Your task to perform on an android device: open app "DoorDash - Food Delivery" (install if not already installed) Image 0: 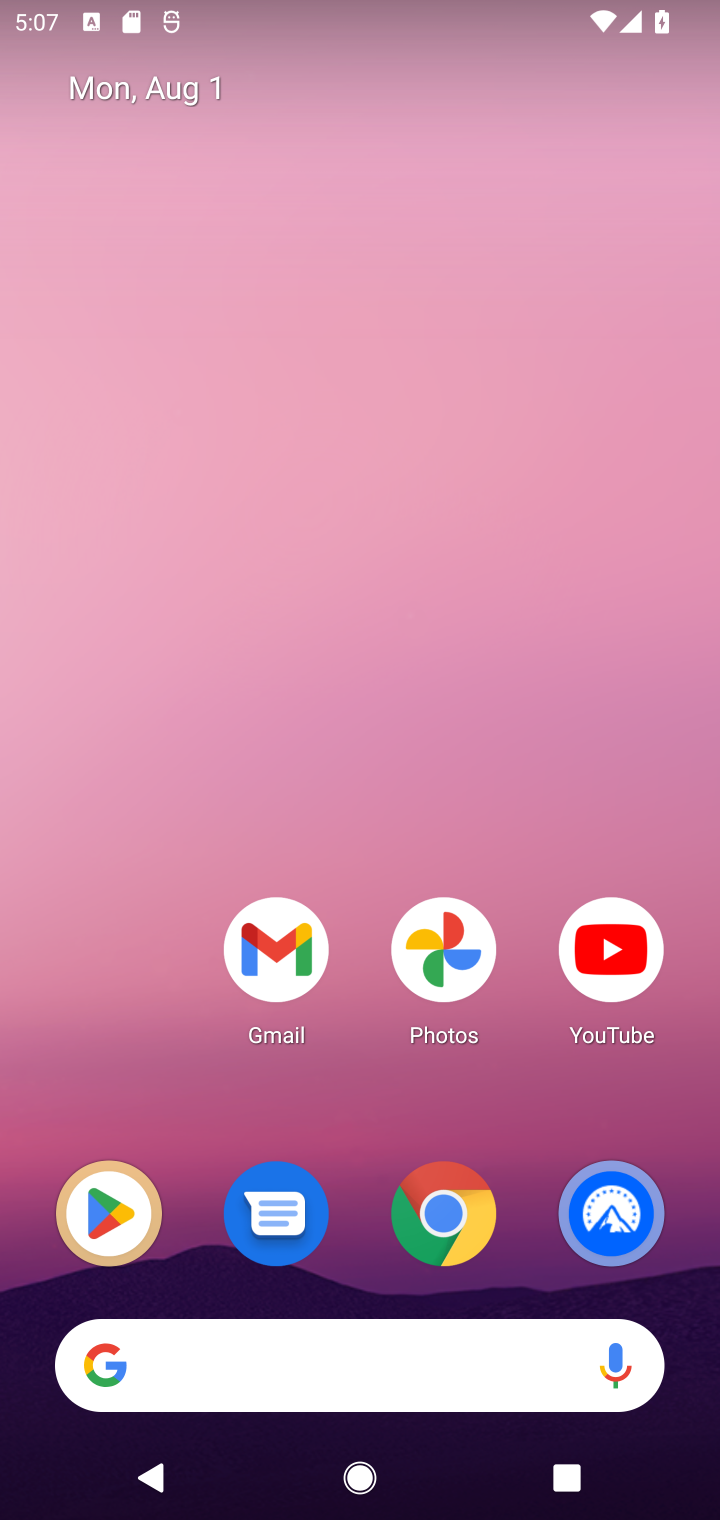
Step 0: drag from (559, 246) to (547, 69)
Your task to perform on an android device: open app "DoorDash - Food Delivery" (install if not already installed) Image 1: 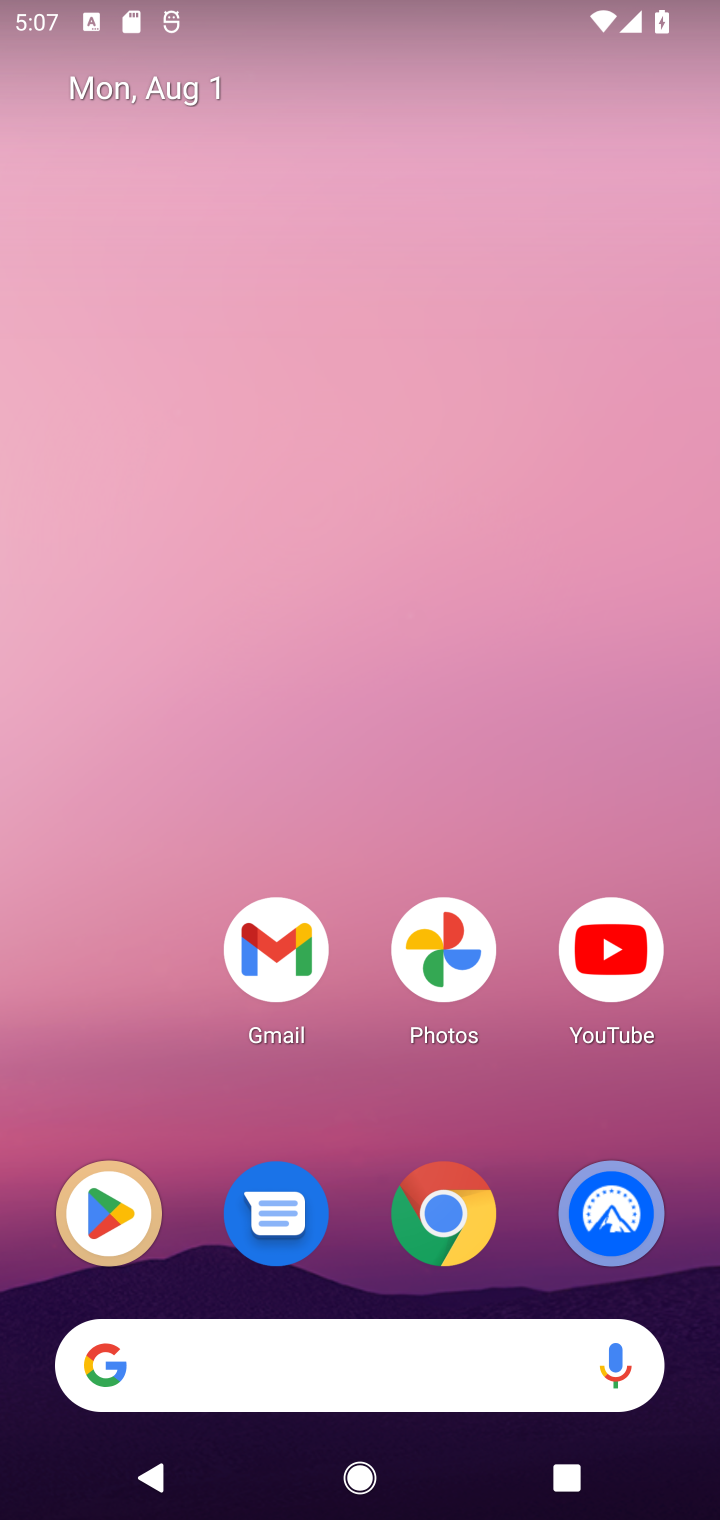
Step 1: drag from (515, 1046) to (531, 187)
Your task to perform on an android device: open app "DoorDash - Food Delivery" (install if not already installed) Image 2: 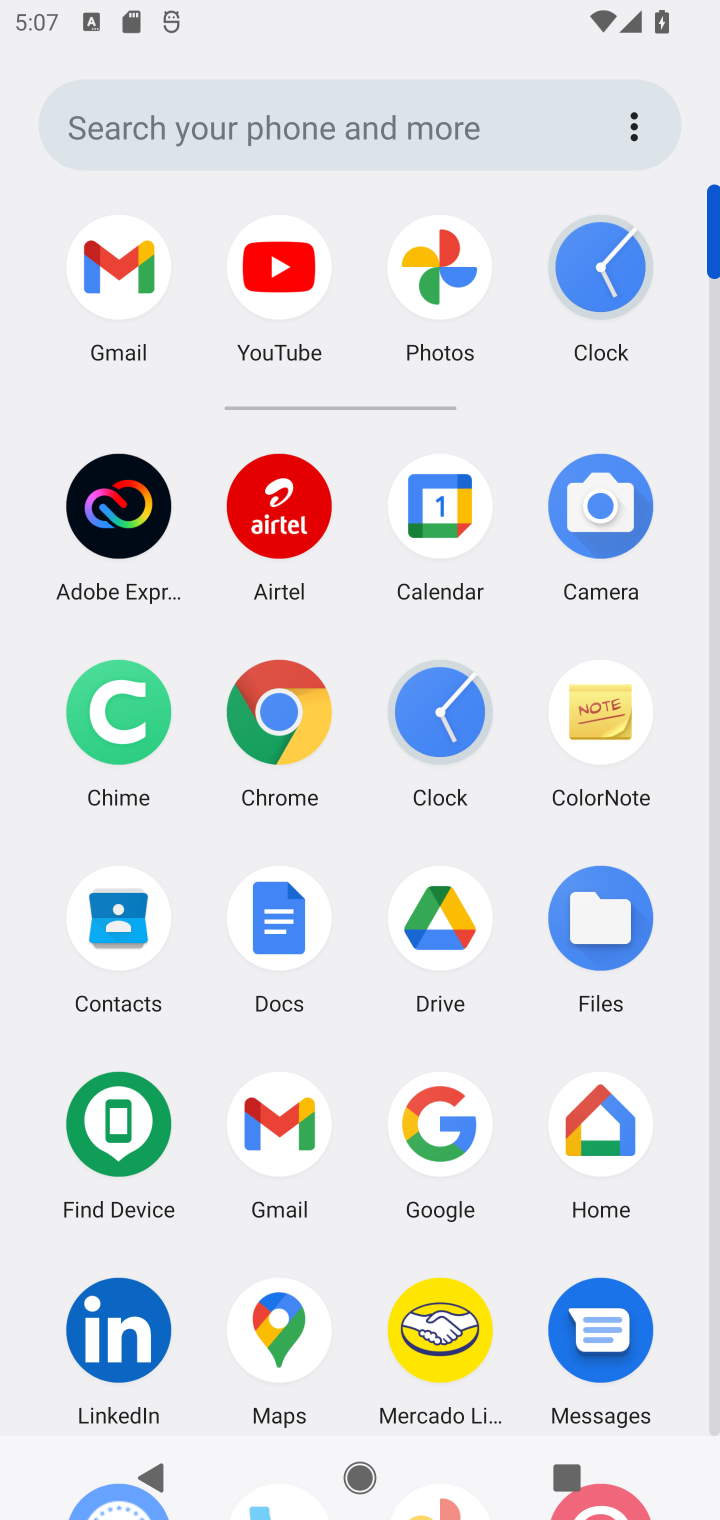
Step 2: drag from (526, 1184) to (617, 336)
Your task to perform on an android device: open app "DoorDash - Food Delivery" (install if not already installed) Image 3: 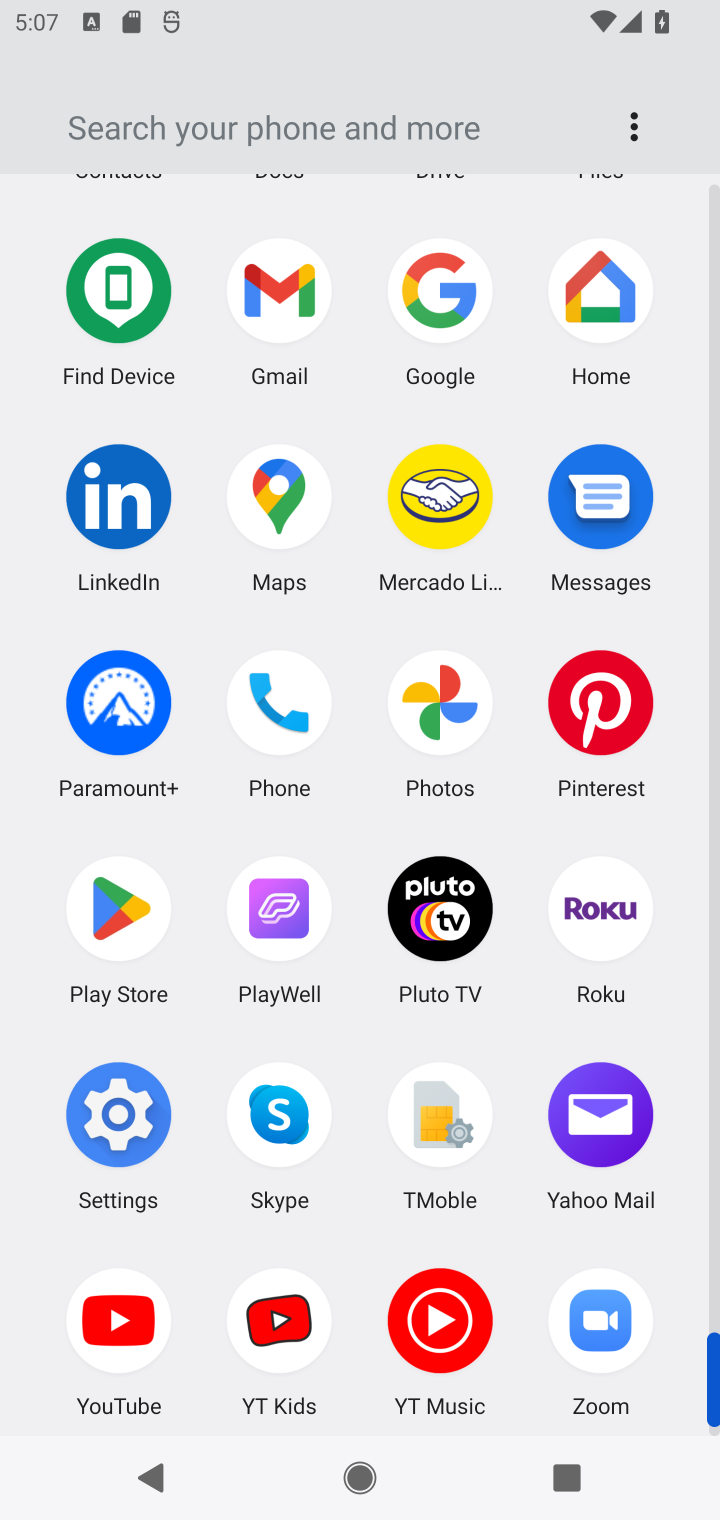
Step 3: drag from (341, 1020) to (403, 390)
Your task to perform on an android device: open app "DoorDash - Food Delivery" (install if not already installed) Image 4: 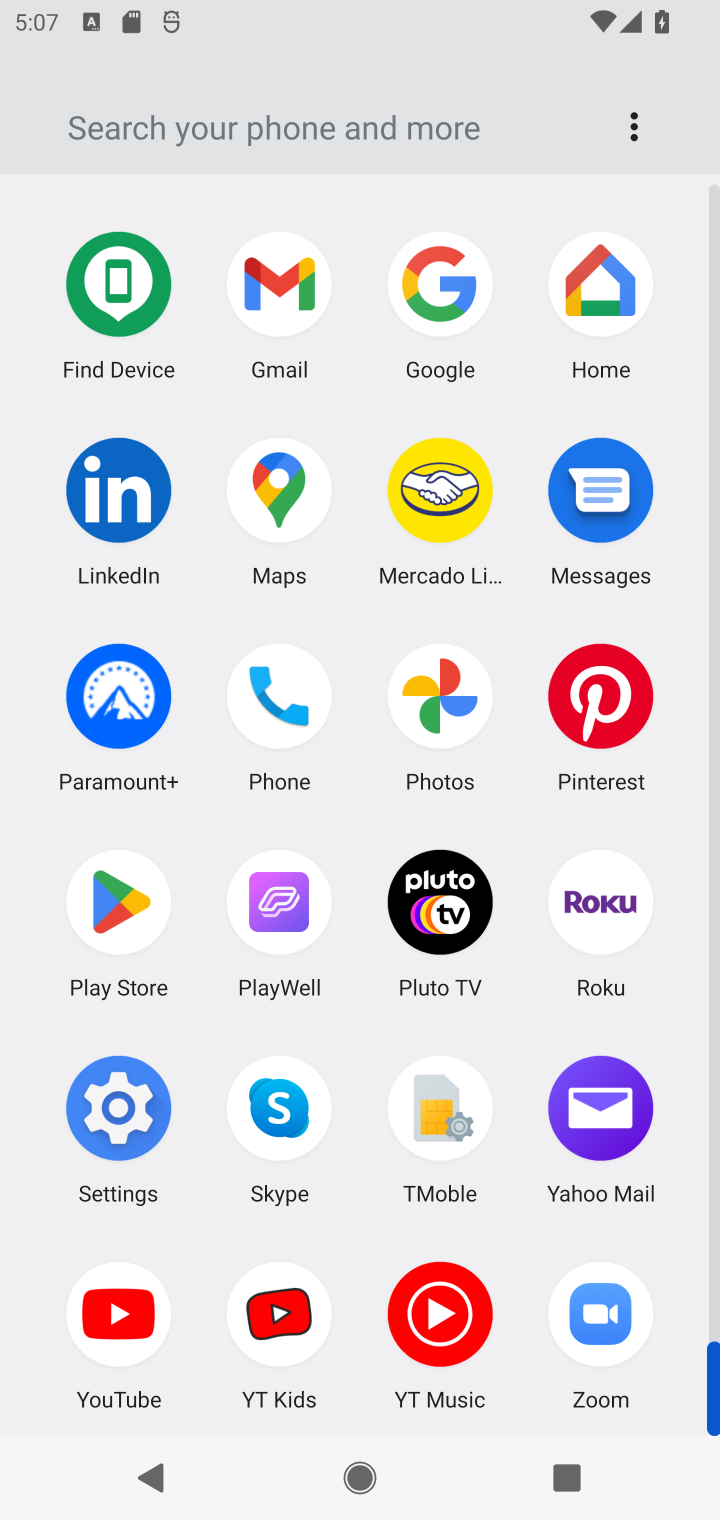
Step 4: drag from (377, 391) to (310, 1214)
Your task to perform on an android device: open app "DoorDash - Food Delivery" (install if not already installed) Image 5: 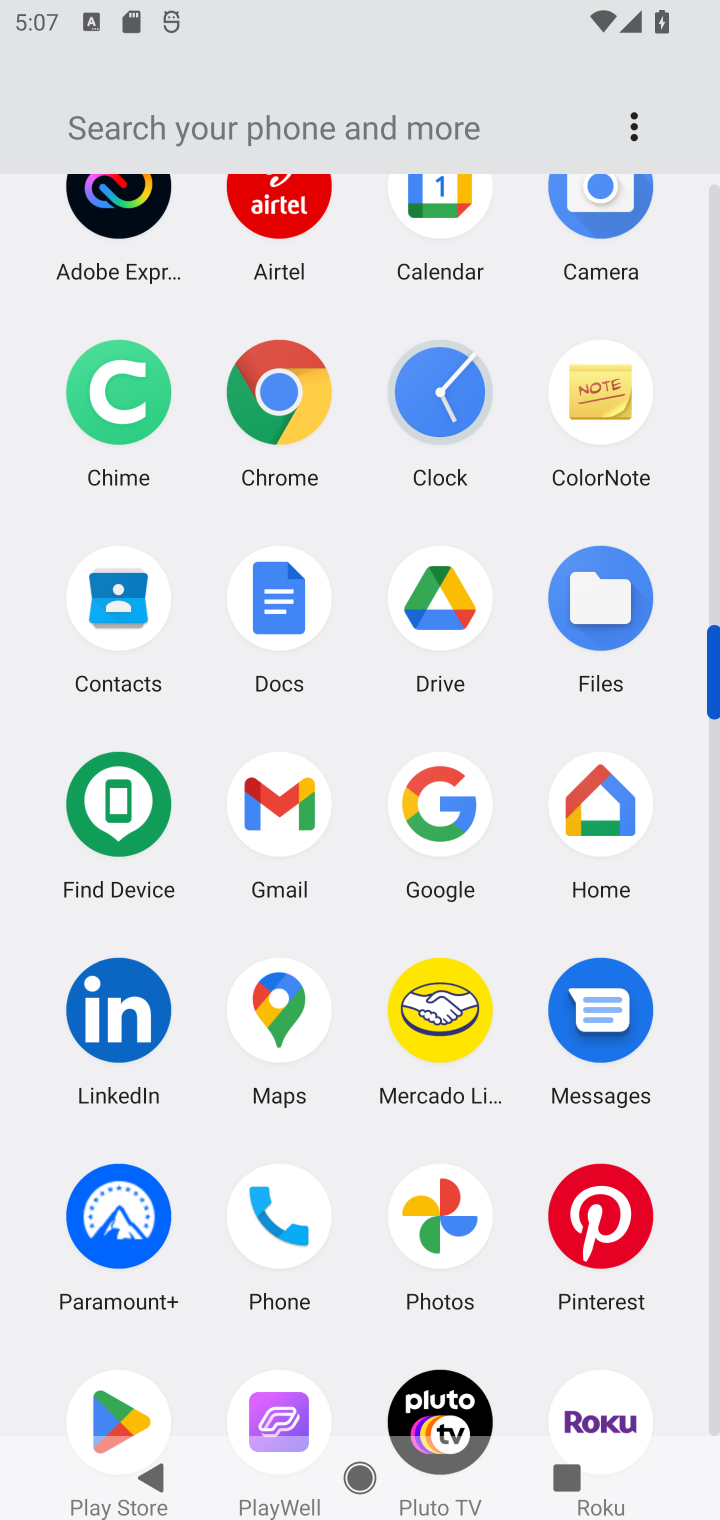
Step 5: drag from (347, 493) to (509, 474)
Your task to perform on an android device: open app "DoorDash - Food Delivery" (install if not already installed) Image 6: 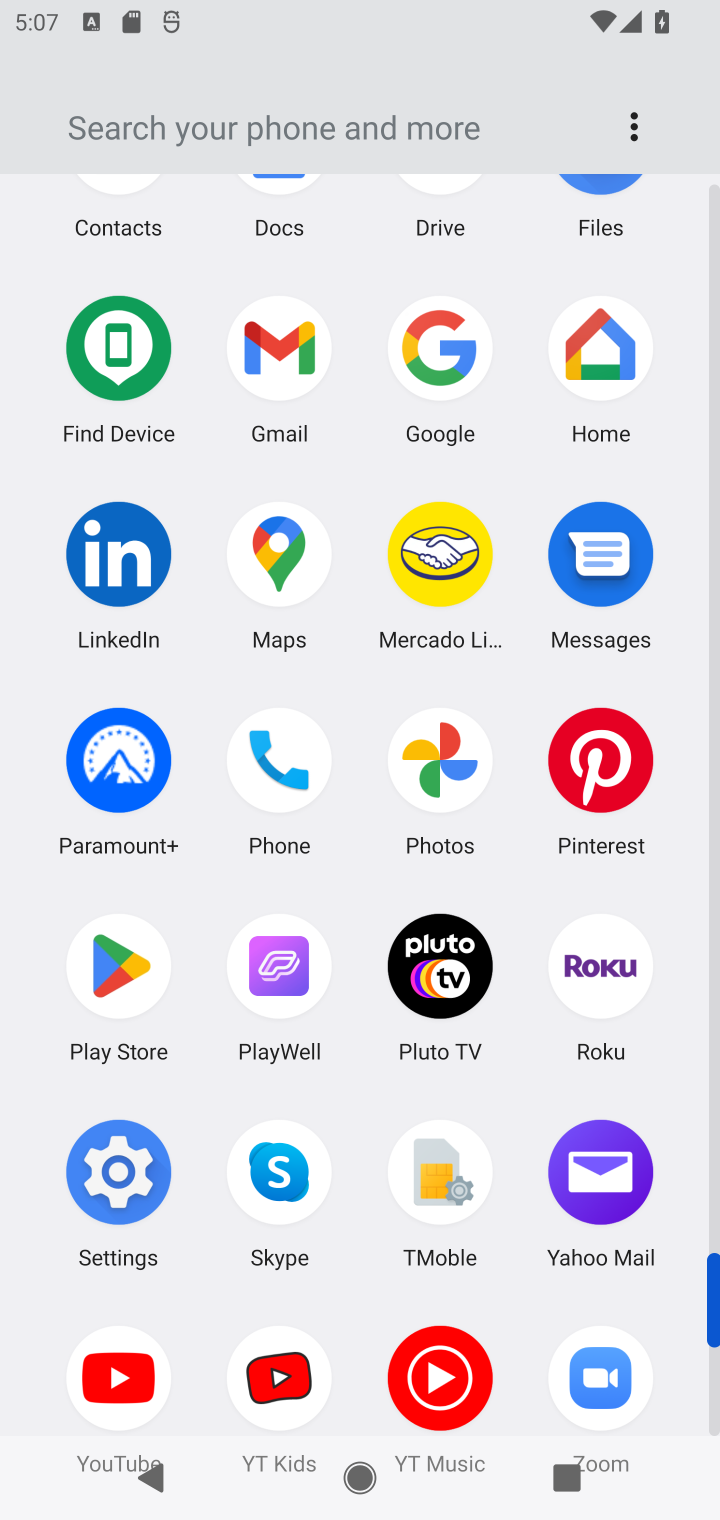
Step 6: click (107, 956)
Your task to perform on an android device: open app "DoorDash - Food Delivery" (install if not already installed) Image 7: 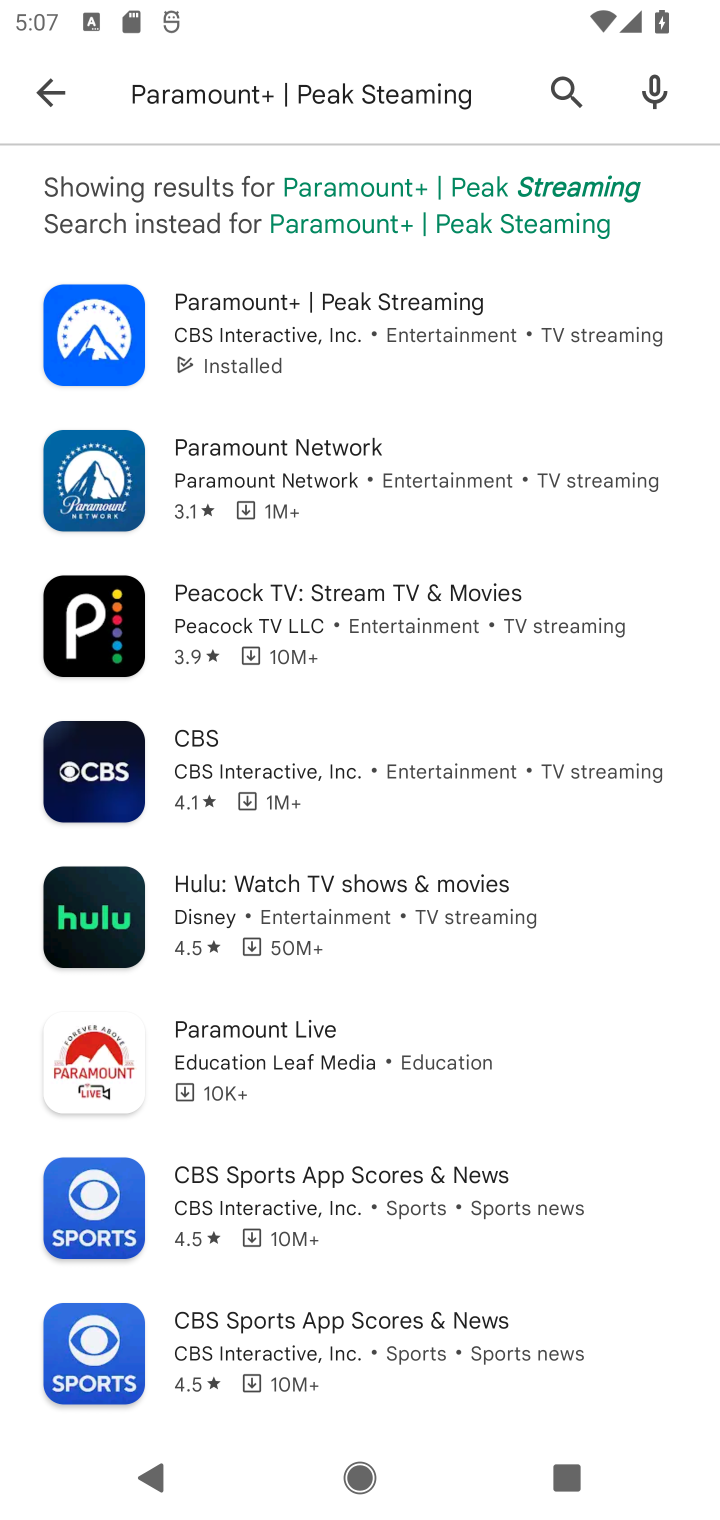
Step 7: click (416, 94)
Your task to perform on an android device: open app "DoorDash - Food Delivery" (install if not already installed) Image 8: 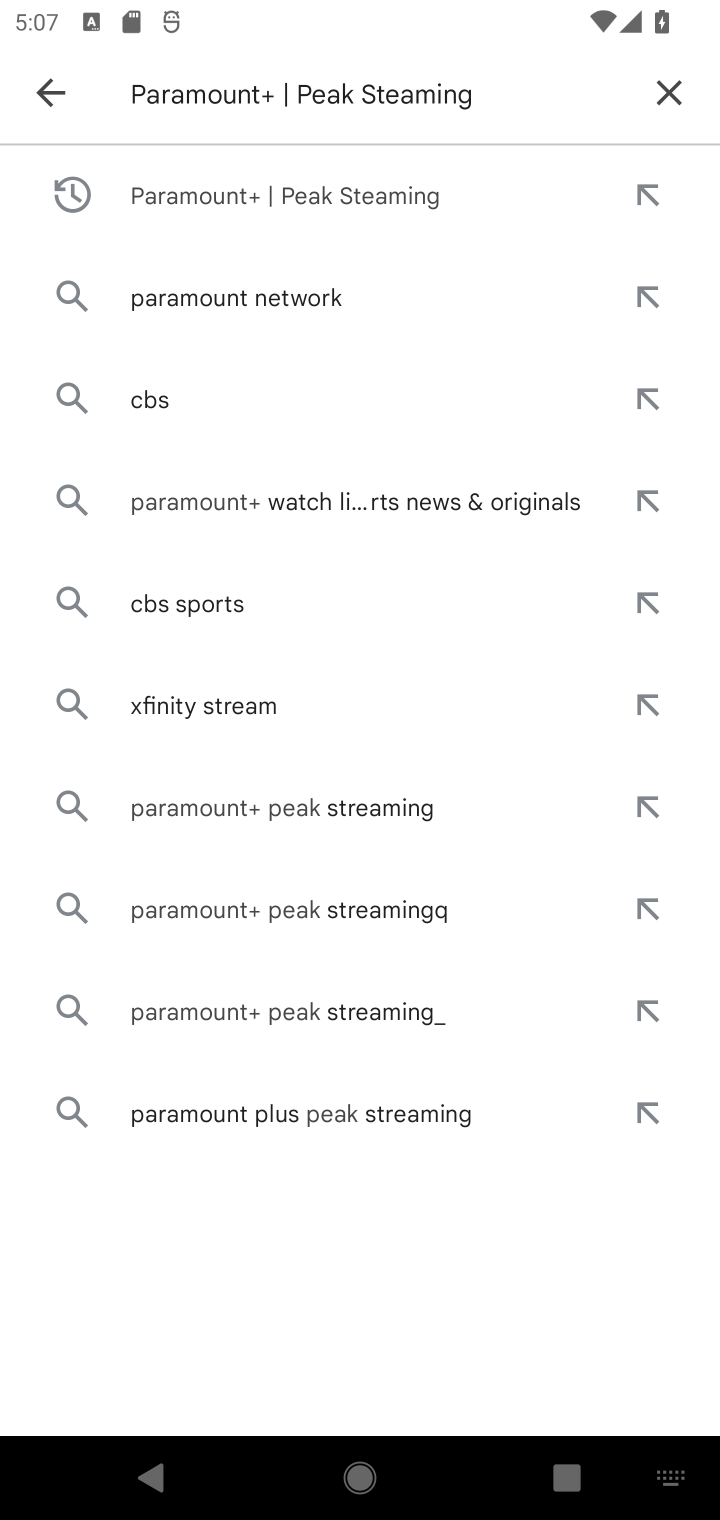
Step 8: click (678, 90)
Your task to perform on an android device: open app "DoorDash - Food Delivery" (install if not already installed) Image 9: 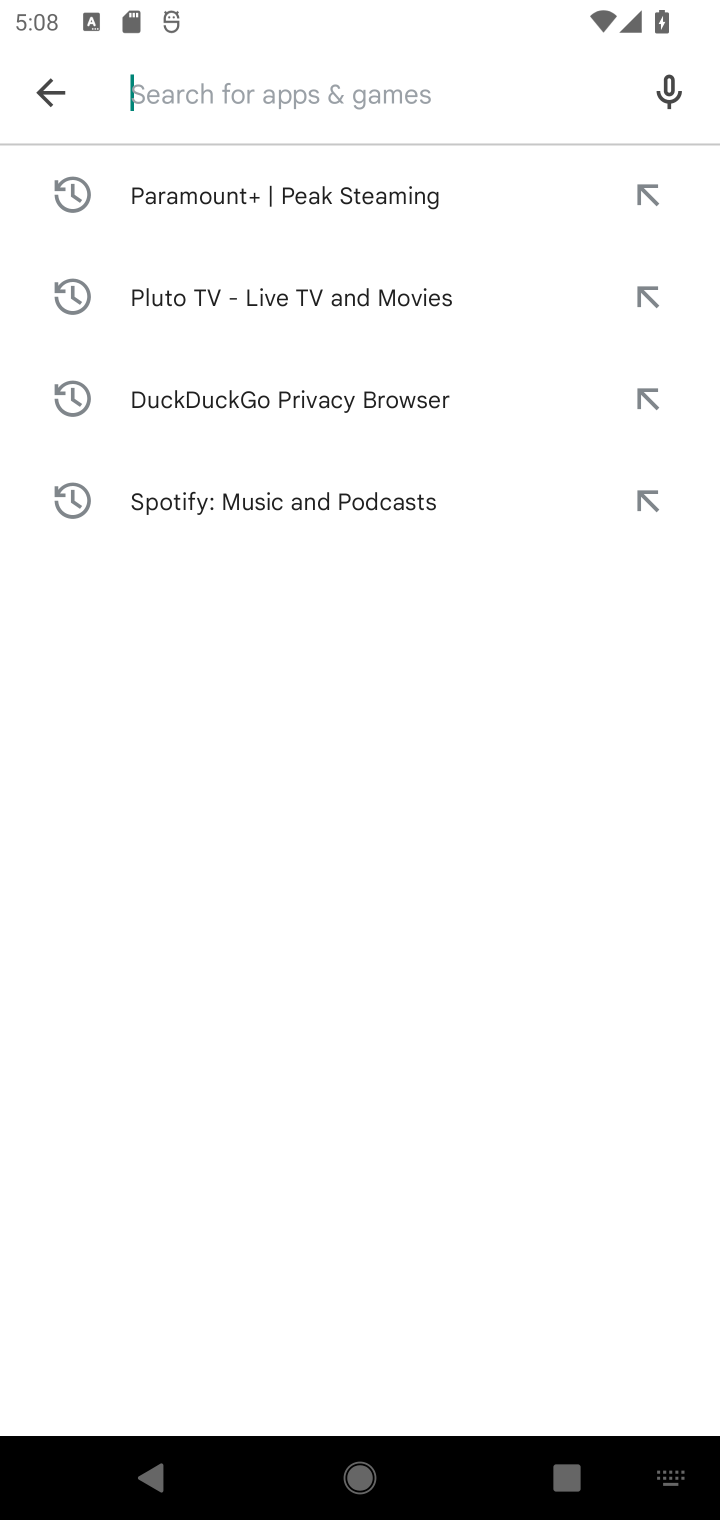
Step 9: type "DoorDash - Food Delivery"
Your task to perform on an android device: open app "DoorDash - Food Delivery" (install if not already installed) Image 10: 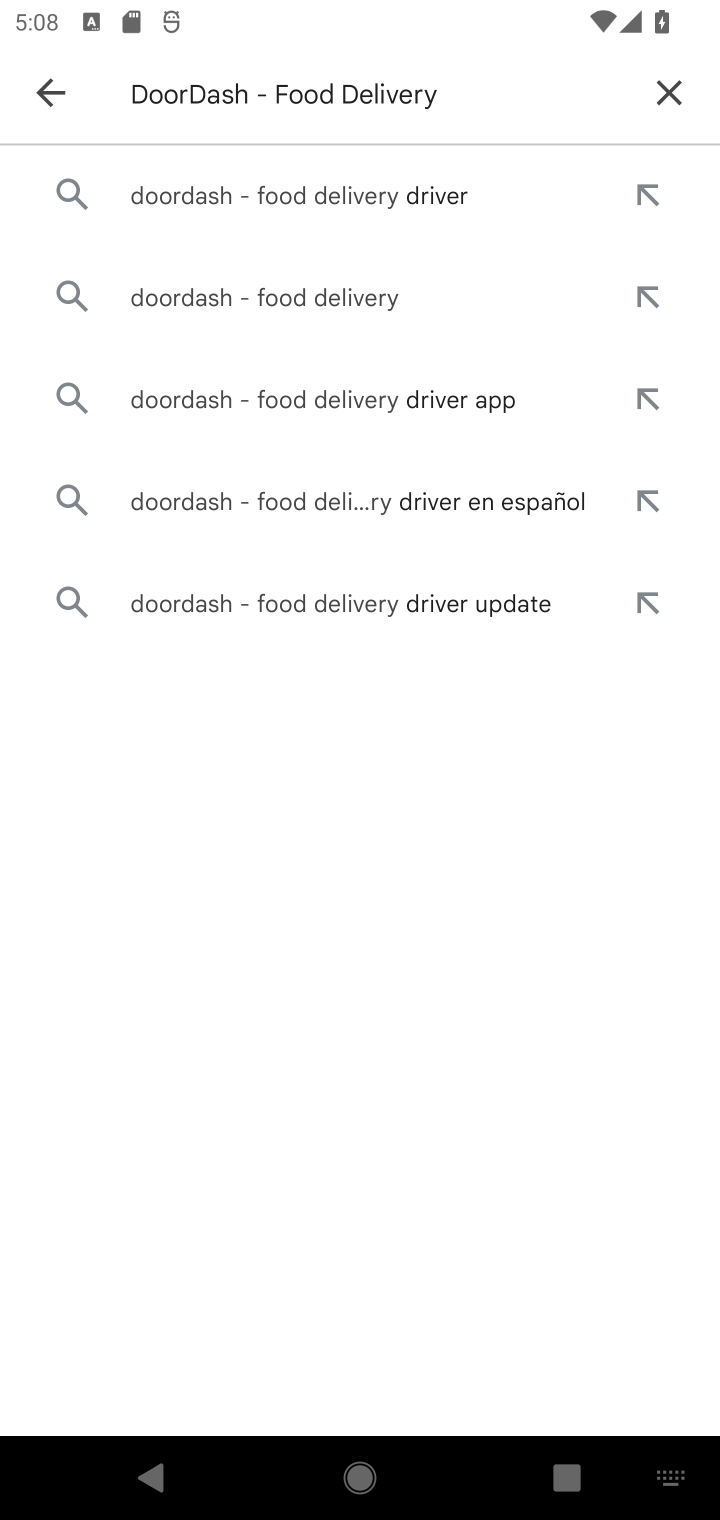
Step 10: press enter
Your task to perform on an android device: open app "DoorDash - Food Delivery" (install if not already installed) Image 11: 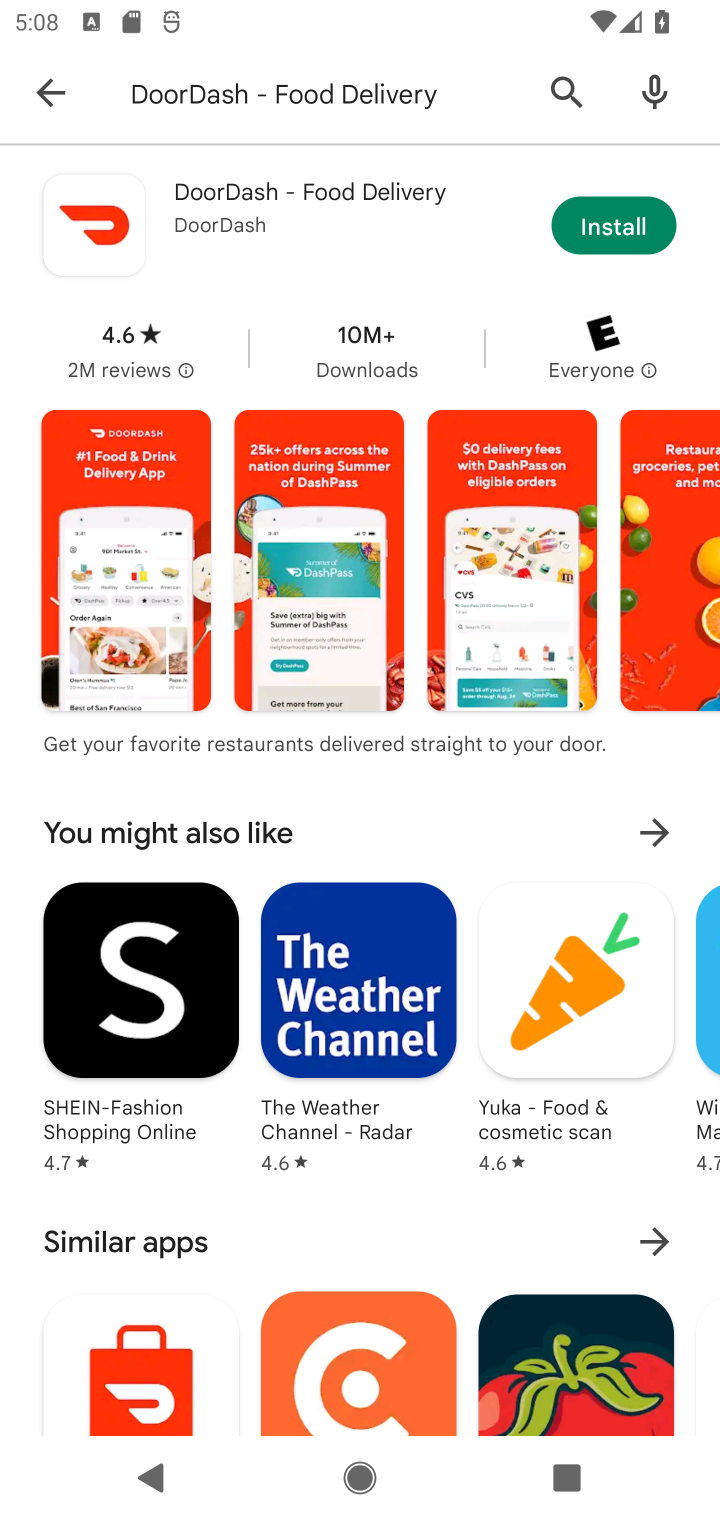
Step 11: click (611, 225)
Your task to perform on an android device: open app "DoorDash - Food Delivery" (install if not already installed) Image 12: 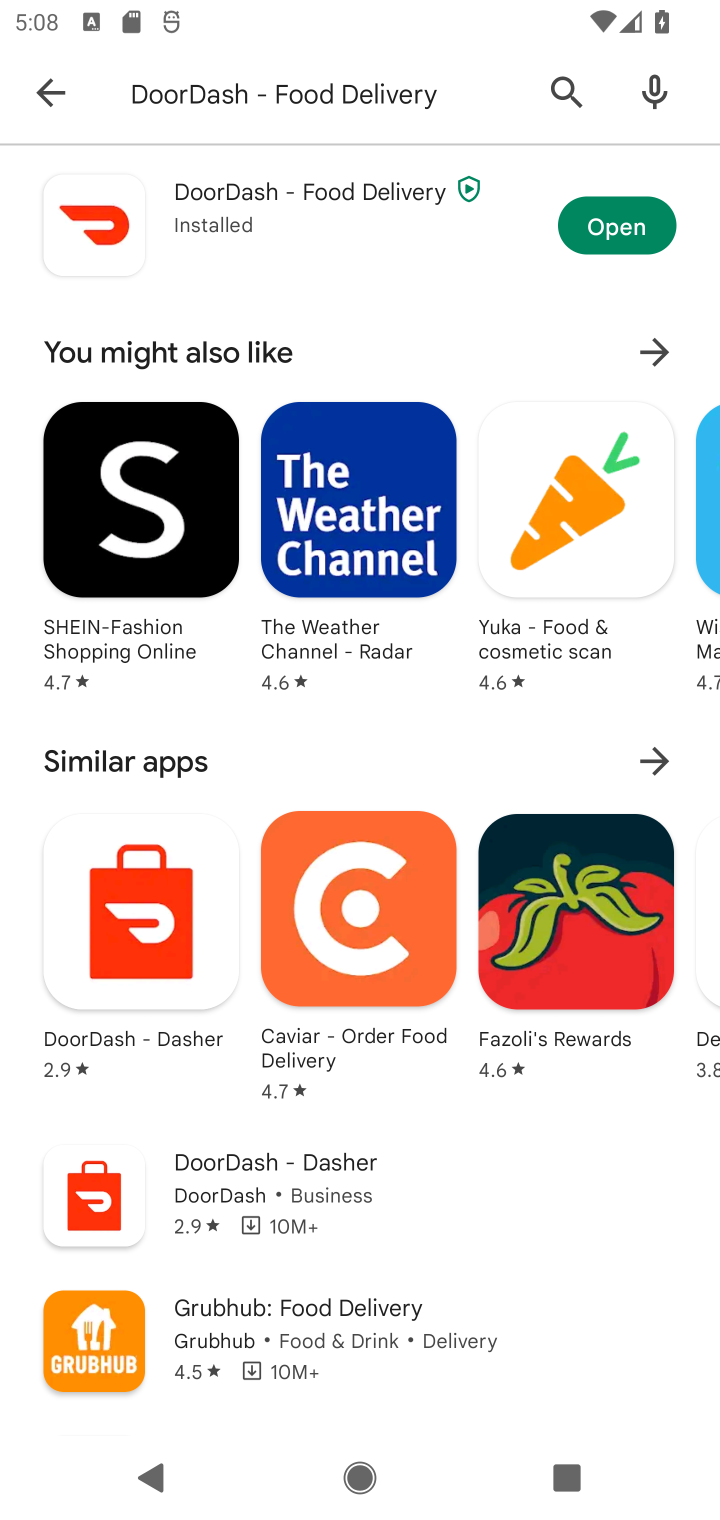
Step 12: click (634, 205)
Your task to perform on an android device: open app "DoorDash - Food Delivery" (install if not already installed) Image 13: 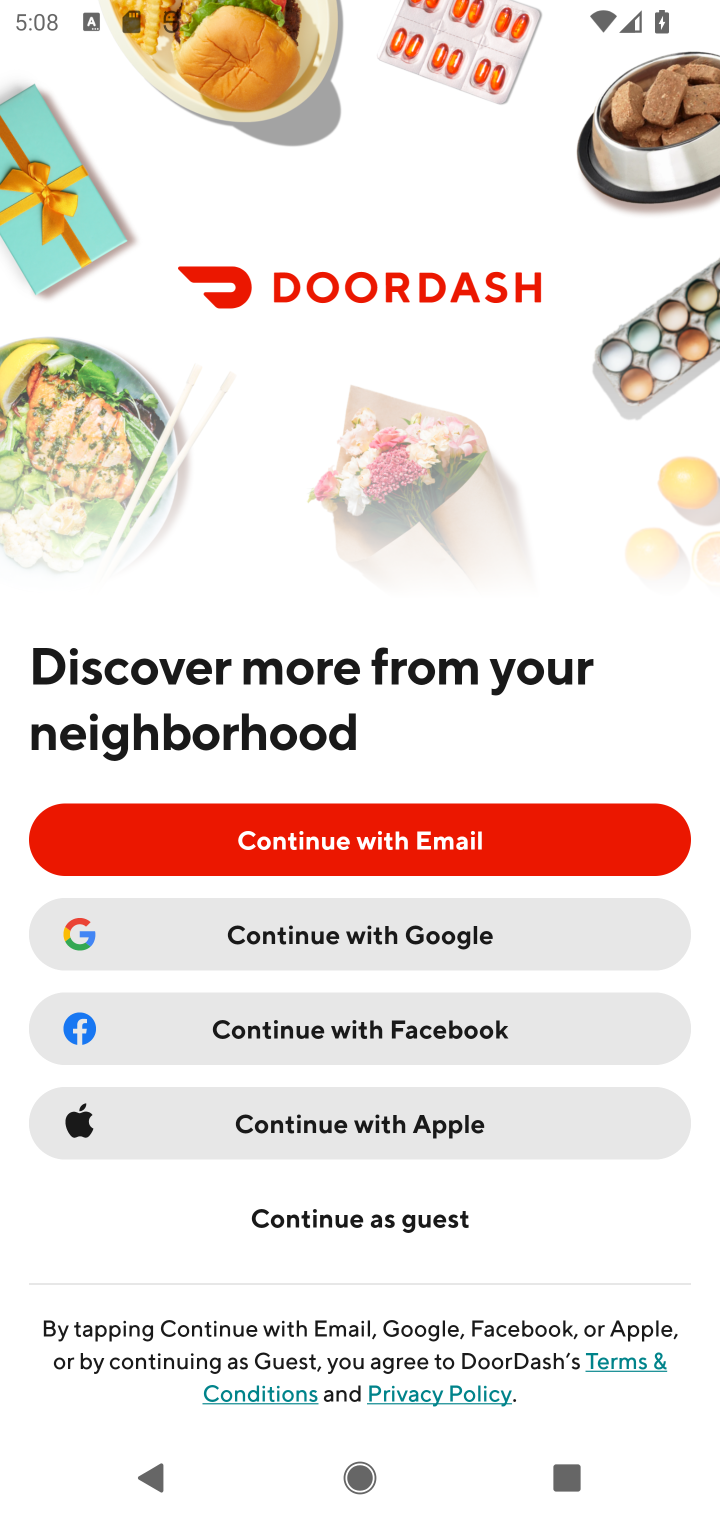
Step 13: task complete